Your task to perform on an android device: toggle javascript in the chrome app Image 0: 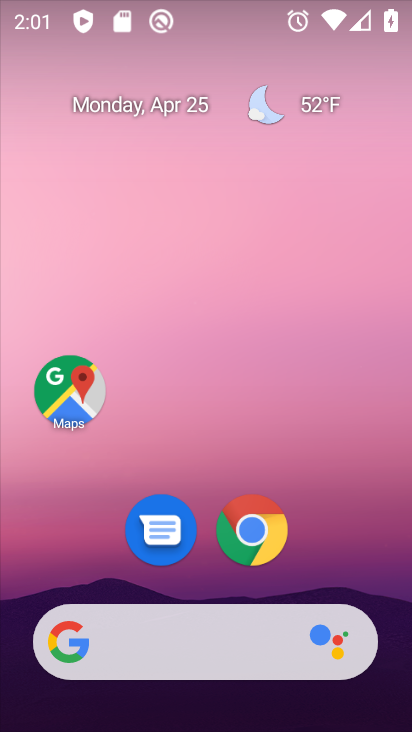
Step 0: drag from (382, 599) to (412, 75)
Your task to perform on an android device: toggle javascript in the chrome app Image 1: 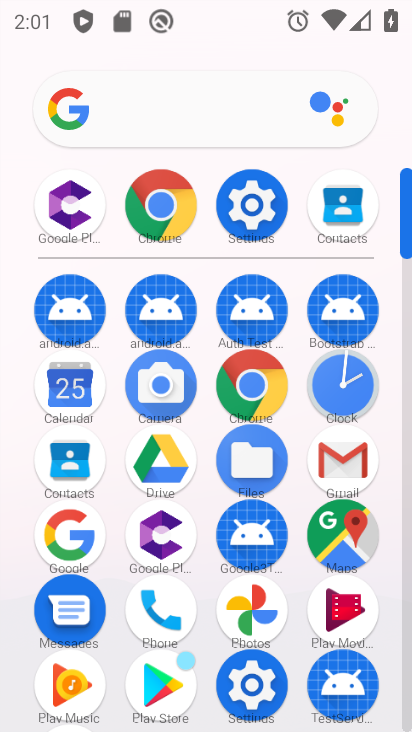
Step 1: click (257, 399)
Your task to perform on an android device: toggle javascript in the chrome app Image 2: 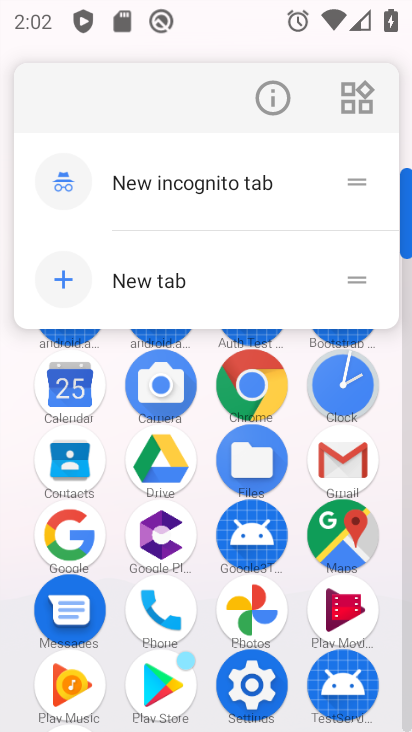
Step 2: click (258, 406)
Your task to perform on an android device: toggle javascript in the chrome app Image 3: 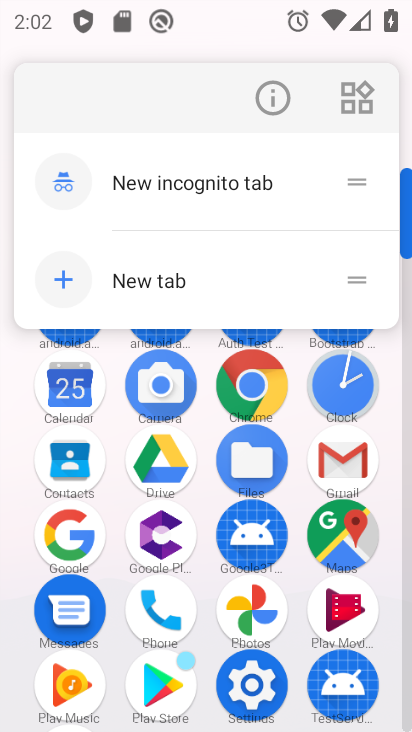
Step 3: click (258, 406)
Your task to perform on an android device: toggle javascript in the chrome app Image 4: 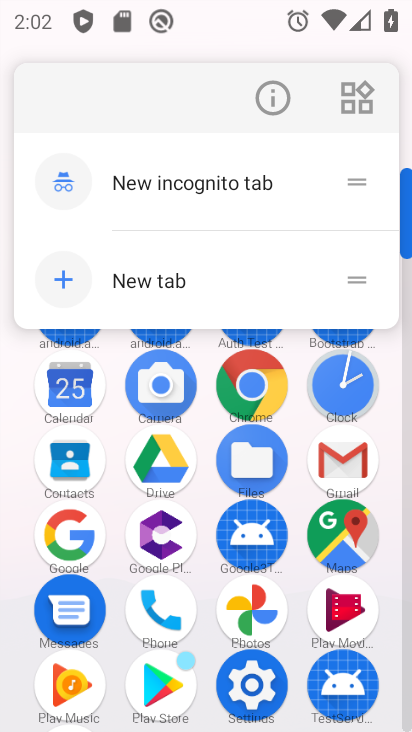
Step 4: click (262, 399)
Your task to perform on an android device: toggle javascript in the chrome app Image 5: 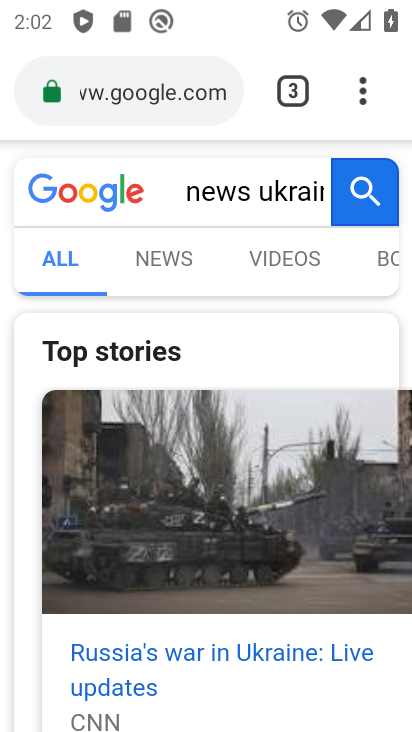
Step 5: drag from (366, 98) to (140, 561)
Your task to perform on an android device: toggle javascript in the chrome app Image 6: 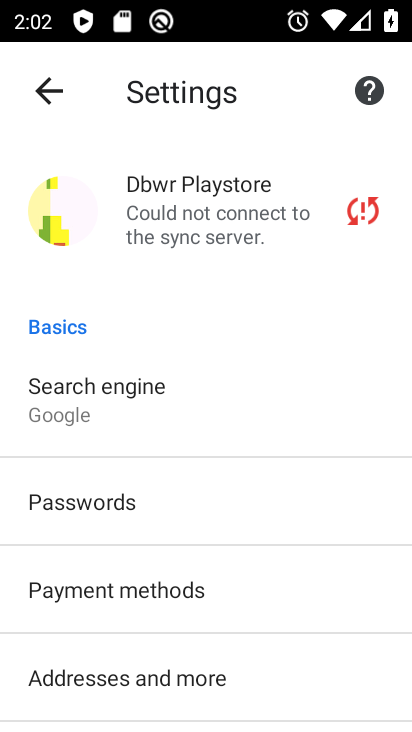
Step 6: drag from (287, 654) to (302, 358)
Your task to perform on an android device: toggle javascript in the chrome app Image 7: 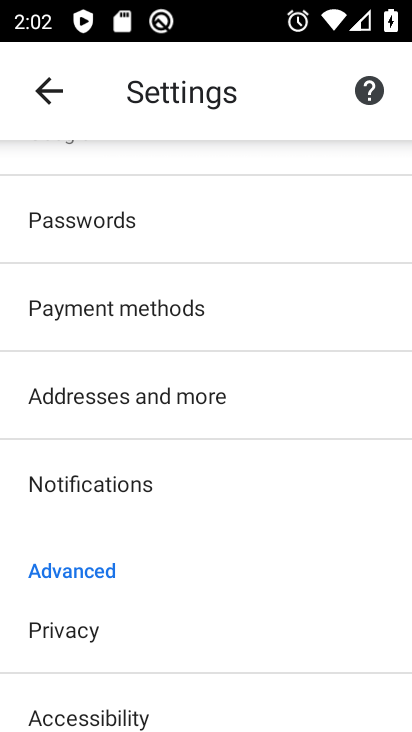
Step 7: drag from (284, 628) to (271, 273)
Your task to perform on an android device: toggle javascript in the chrome app Image 8: 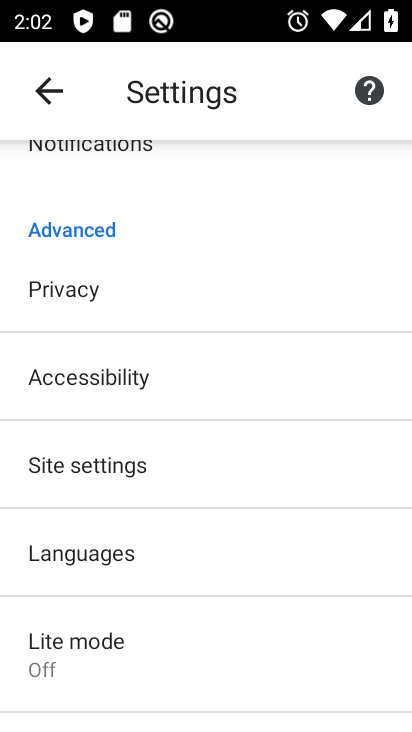
Step 8: click (187, 473)
Your task to perform on an android device: toggle javascript in the chrome app Image 9: 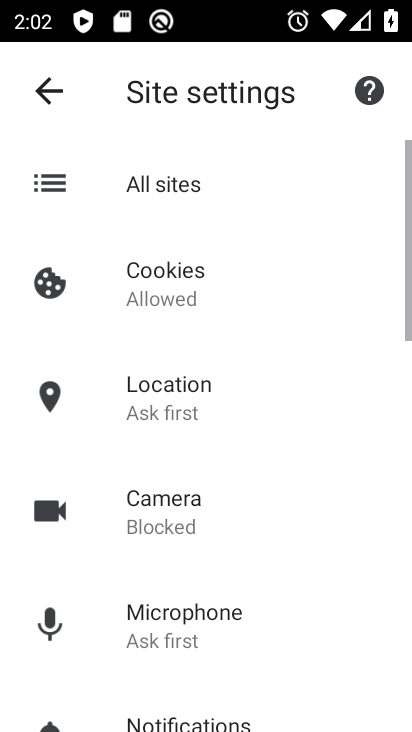
Step 9: drag from (272, 667) to (287, 266)
Your task to perform on an android device: toggle javascript in the chrome app Image 10: 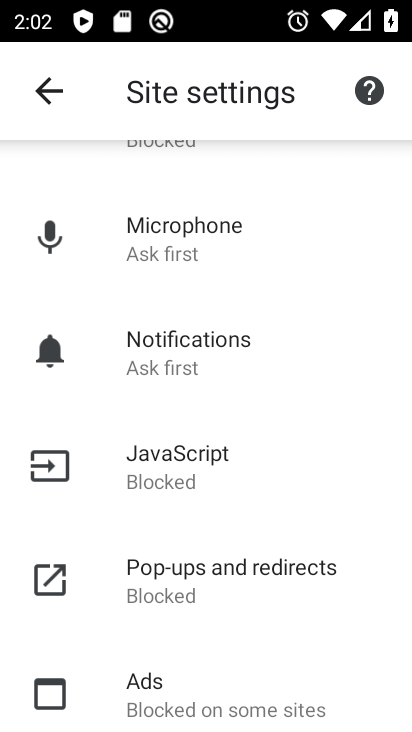
Step 10: click (226, 456)
Your task to perform on an android device: toggle javascript in the chrome app Image 11: 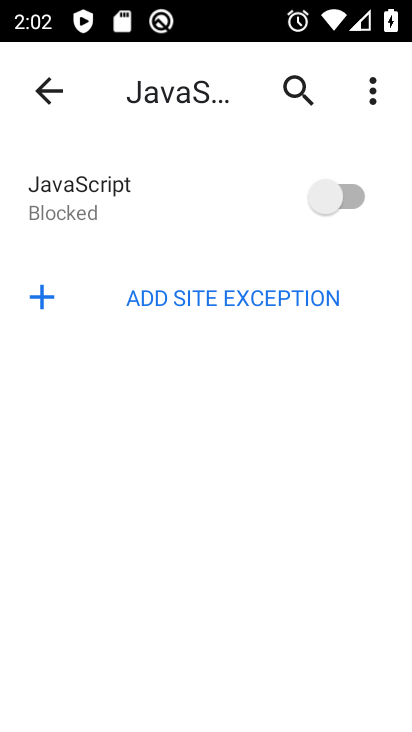
Step 11: click (351, 199)
Your task to perform on an android device: toggle javascript in the chrome app Image 12: 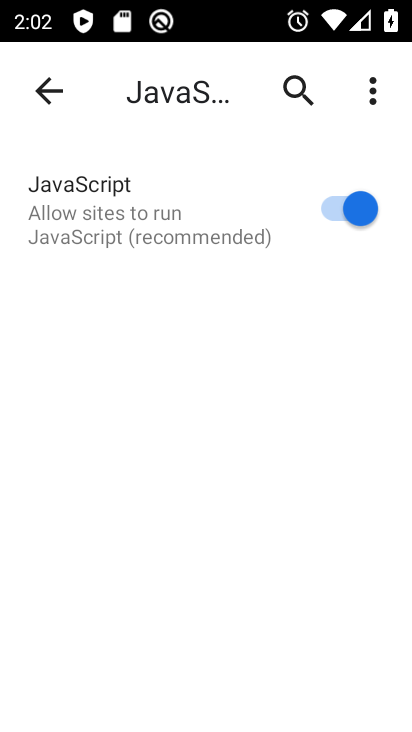
Step 12: task complete